Your task to perform on an android device: set an alarm Image 0: 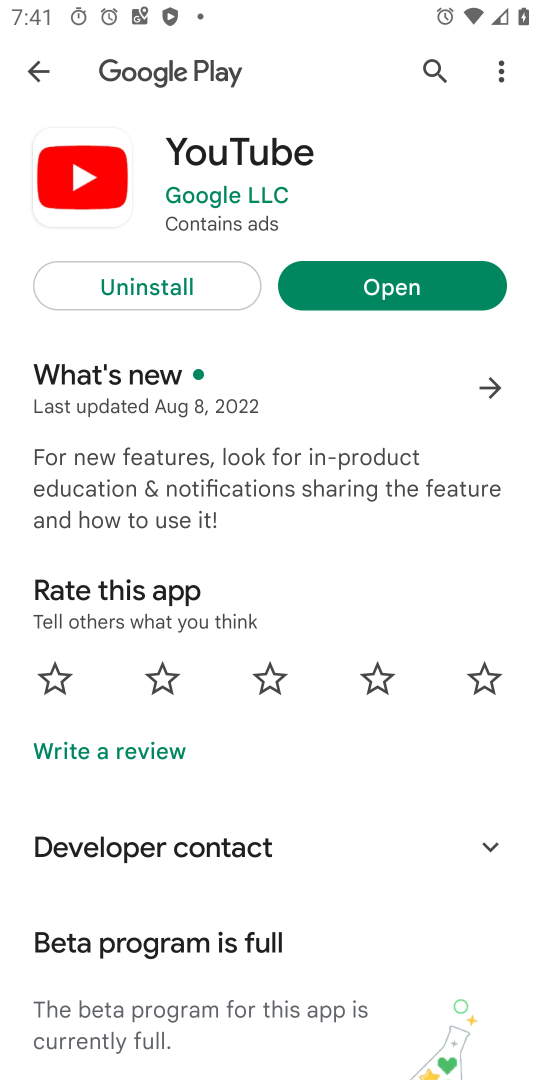
Step 0: press home button
Your task to perform on an android device: set an alarm Image 1: 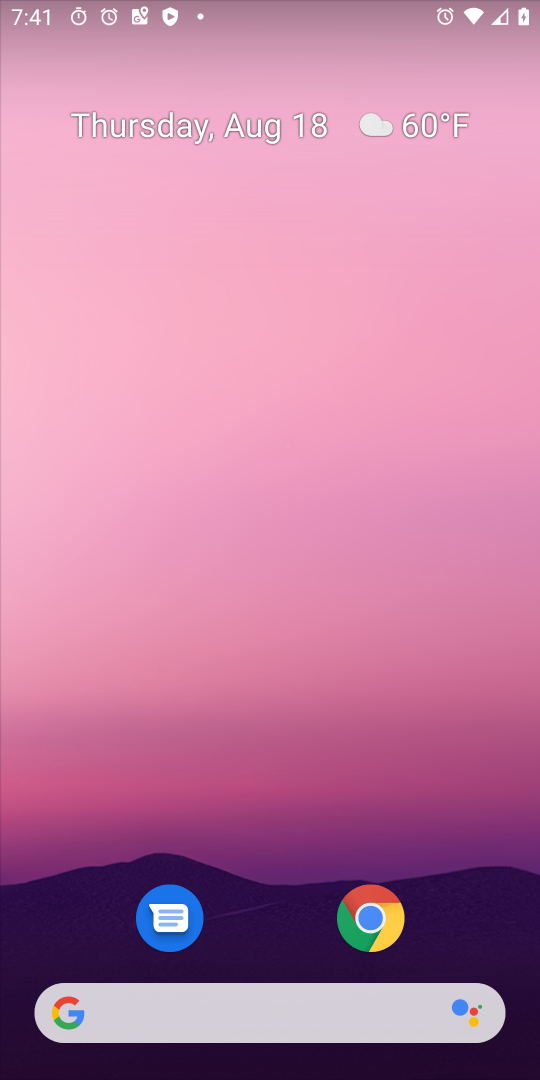
Step 1: drag from (315, 909) to (267, 134)
Your task to perform on an android device: set an alarm Image 2: 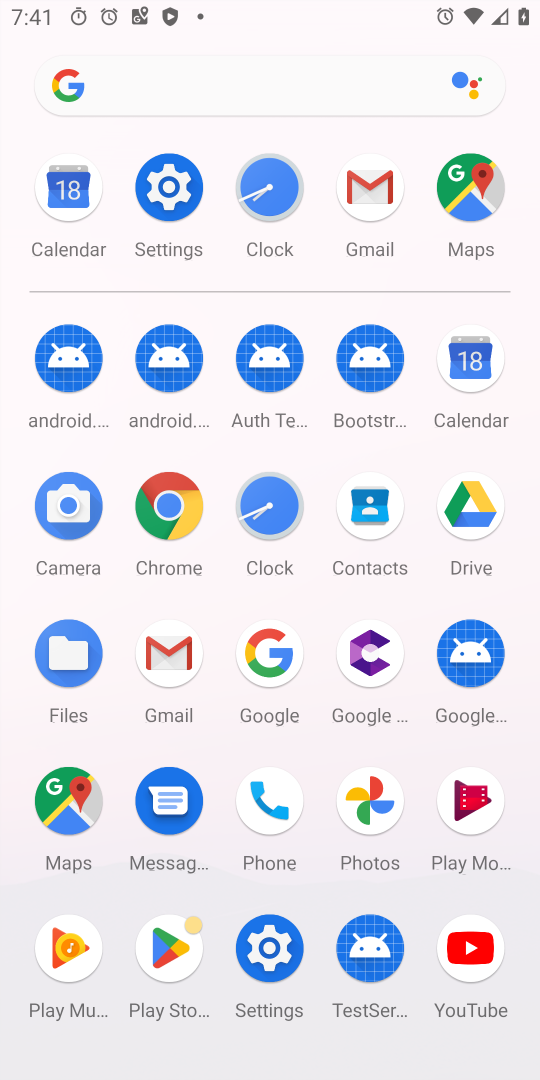
Step 2: click (292, 183)
Your task to perform on an android device: set an alarm Image 3: 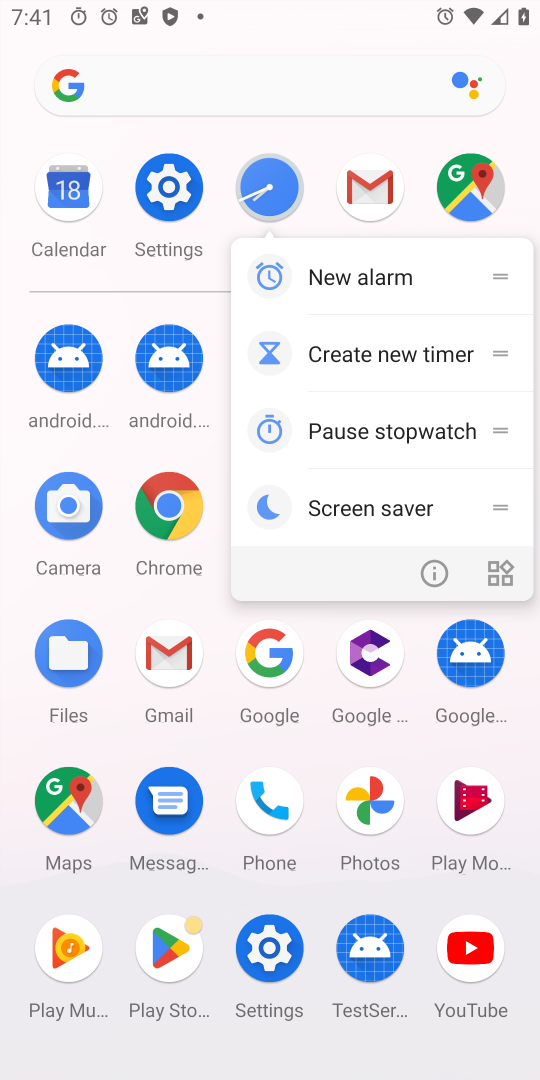
Step 3: click (261, 185)
Your task to perform on an android device: set an alarm Image 4: 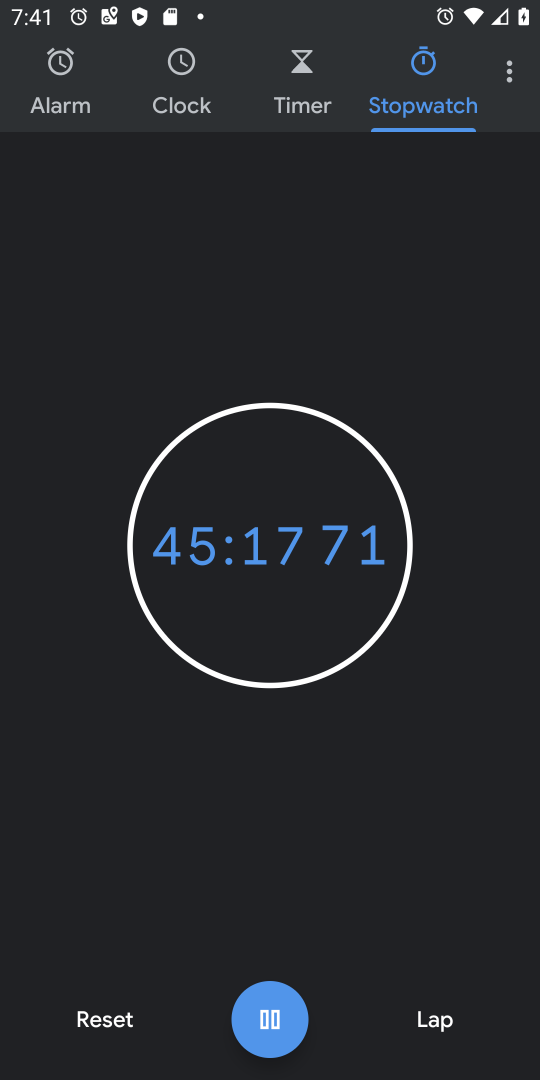
Step 4: click (71, 69)
Your task to perform on an android device: set an alarm Image 5: 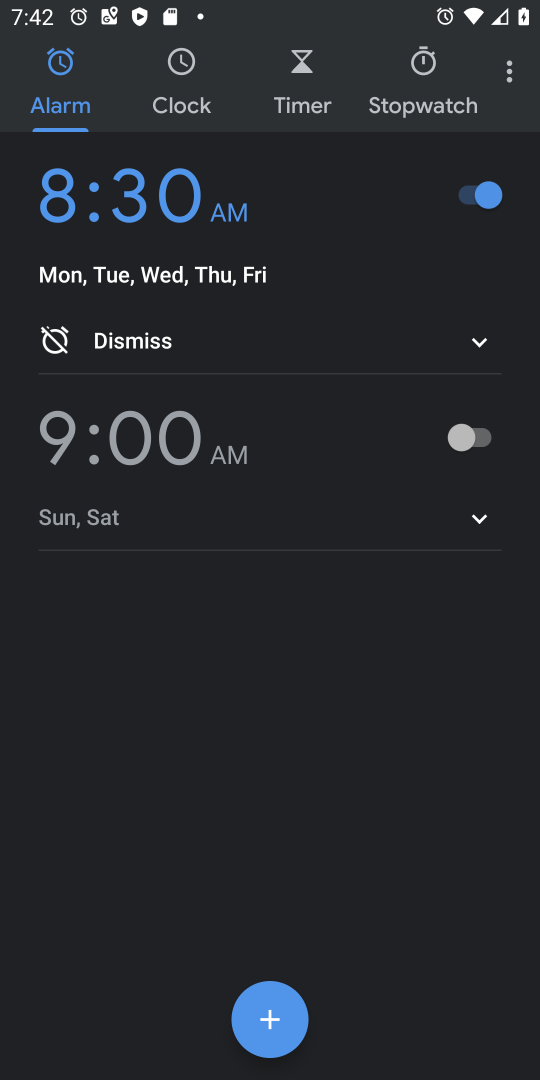
Step 5: click (460, 447)
Your task to perform on an android device: set an alarm Image 6: 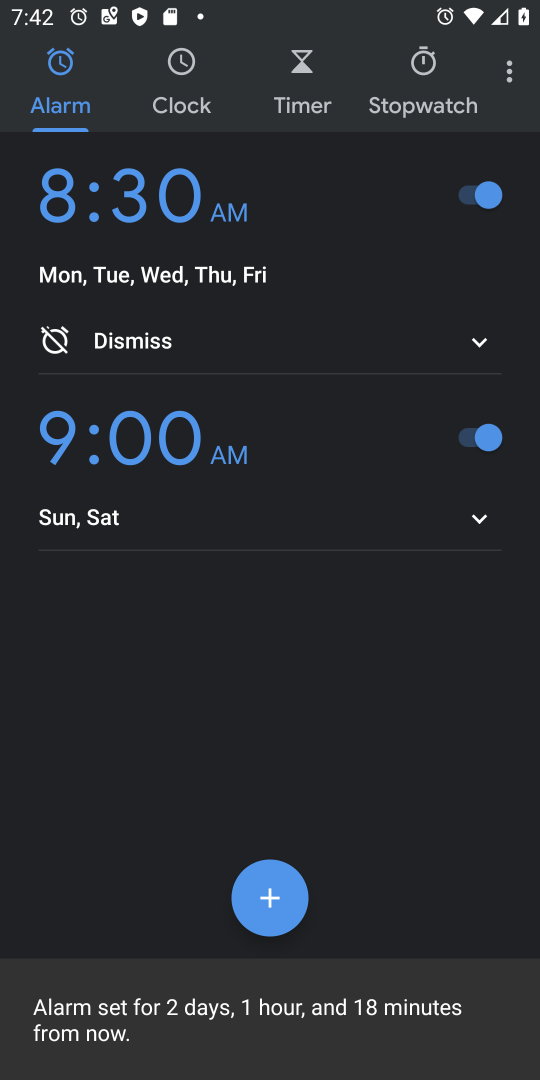
Step 6: task complete